Your task to perform on an android device: Search for Italian restaurants on Maps Image 0: 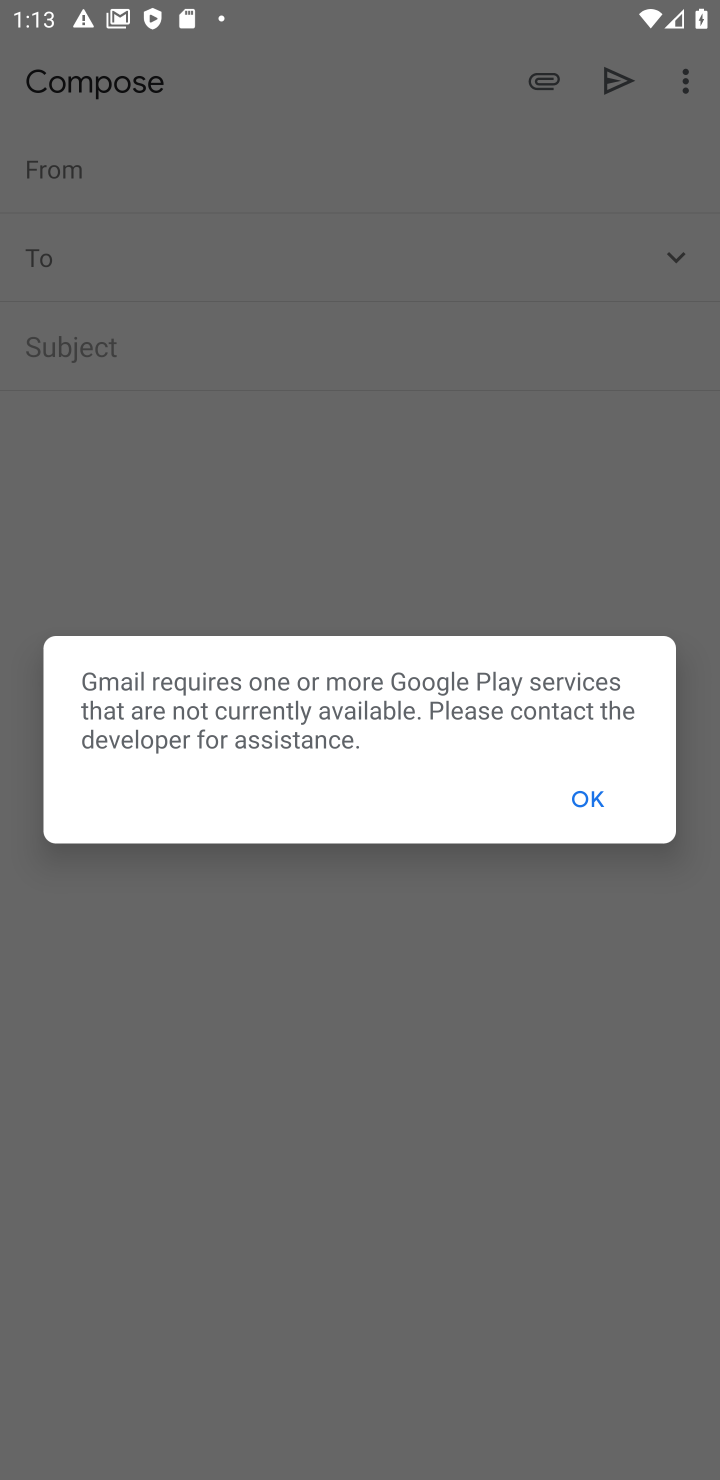
Step 0: press home button
Your task to perform on an android device: Search for Italian restaurants on Maps Image 1: 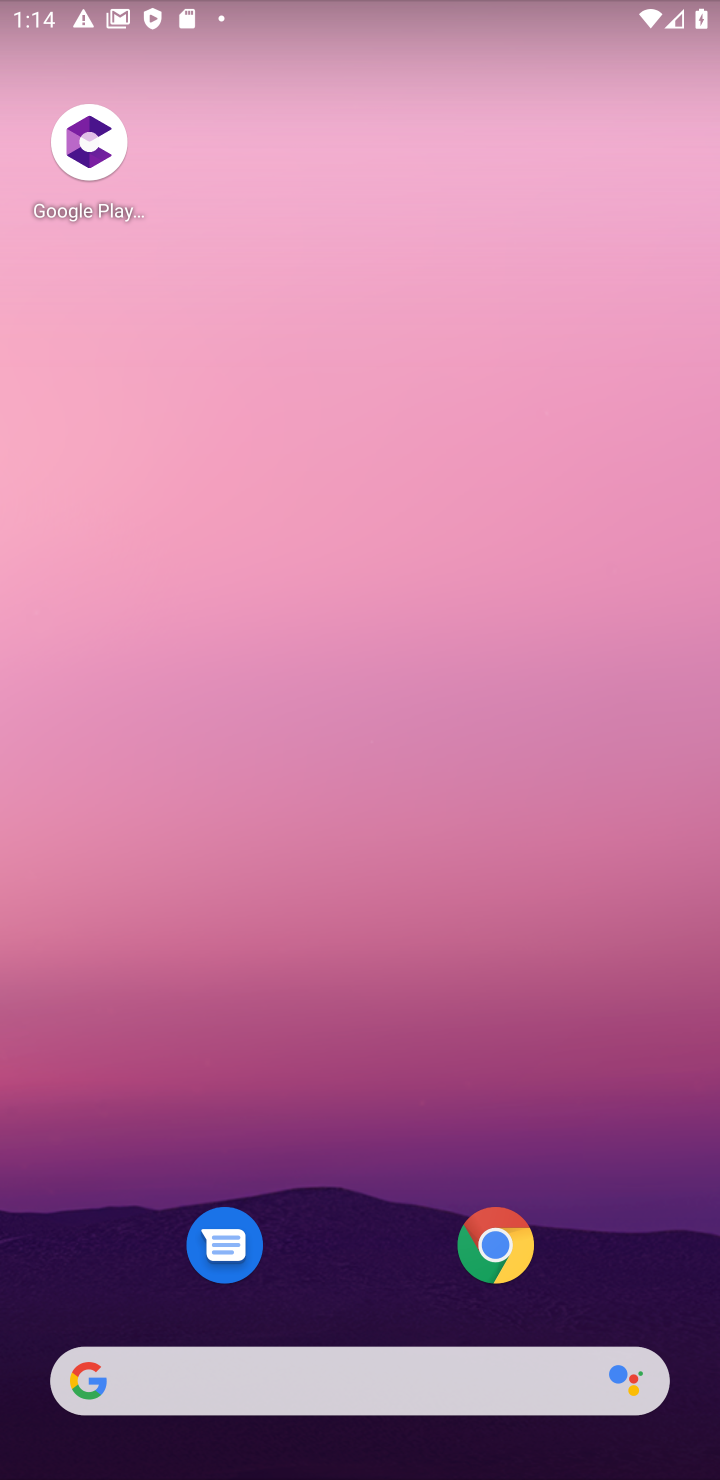
Step 1: drag from (365, 820) to (365, 98)
Your task to perform on an android device: Search for Italian restaurants on Maps Image 2: 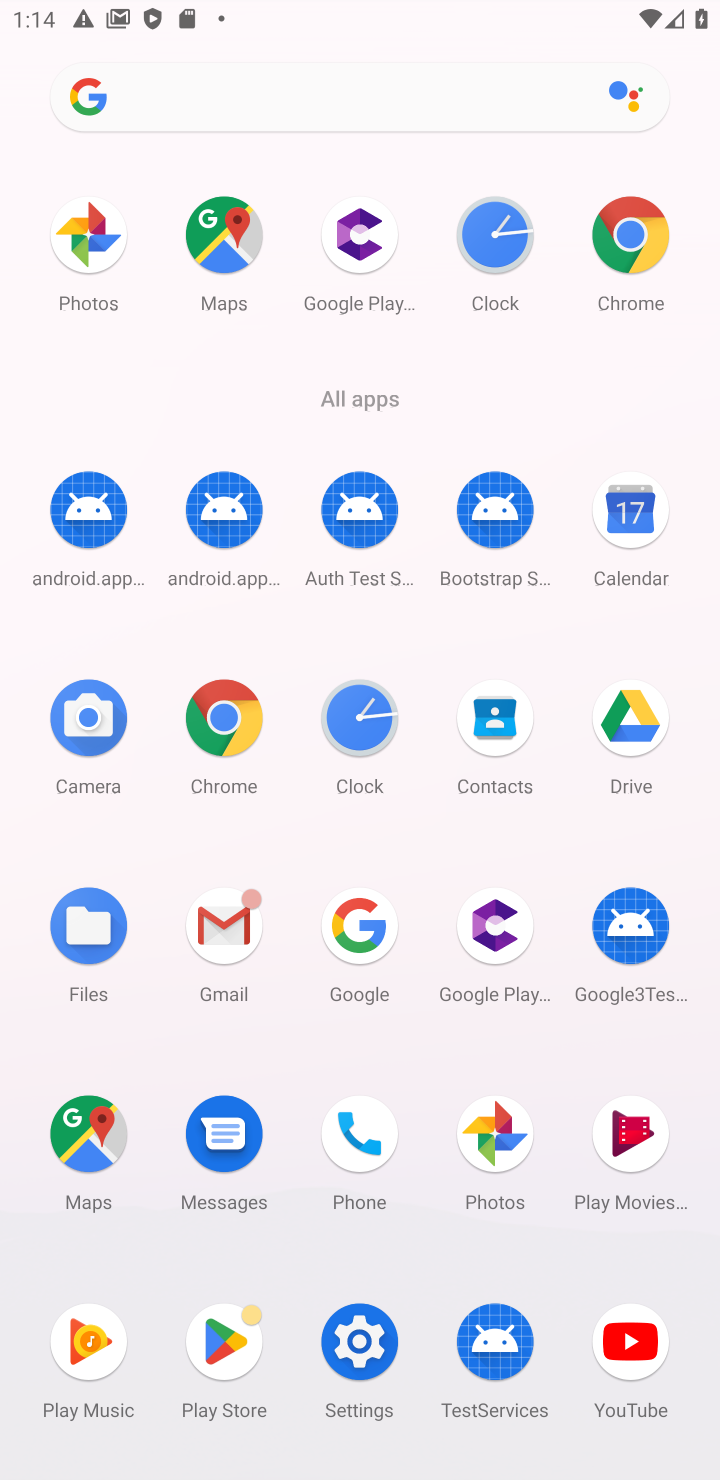
Step 2: click (88, 1117)
Your task to perform on an android device: Search for Italian restaurants on Maps Image 3: 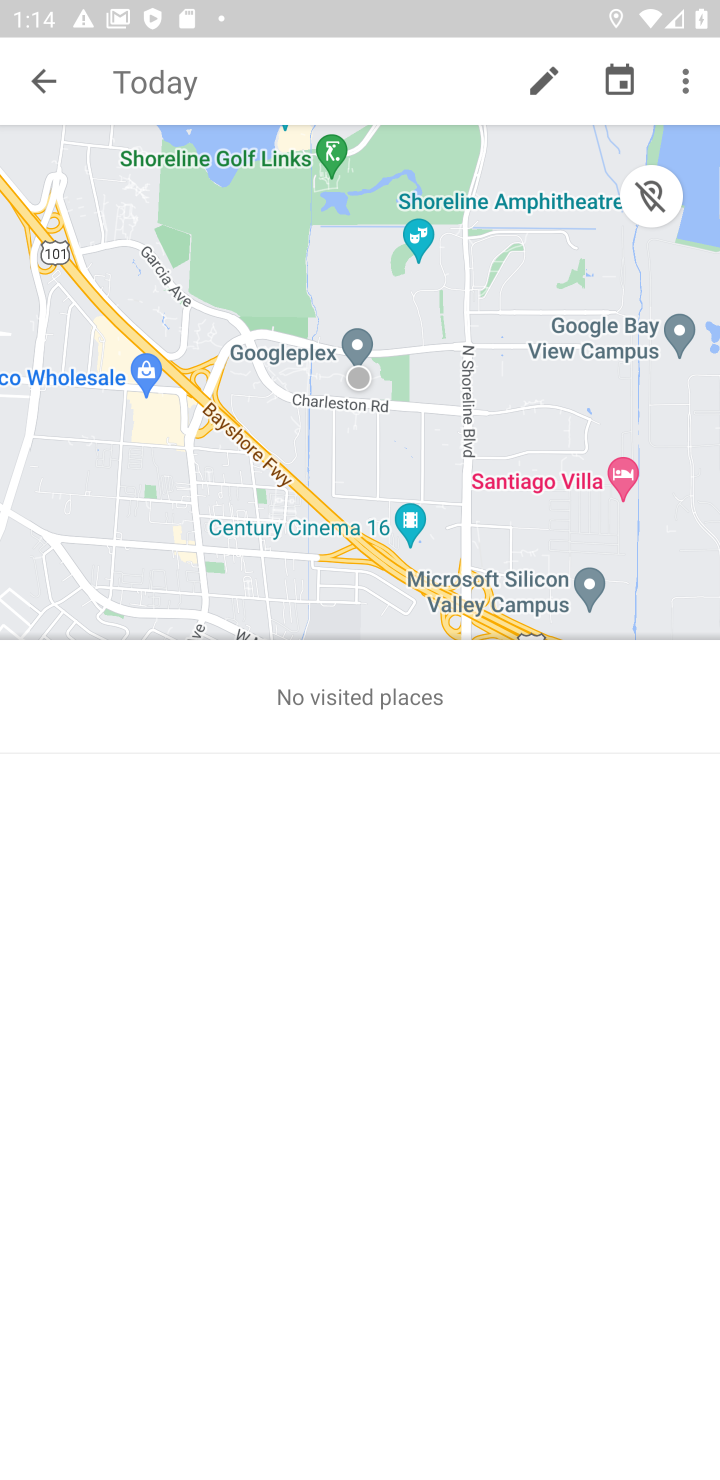
Step 3: click (53, 60)
Your task to perform on an android device: Search for Italian restaurants on Maps Image 4: 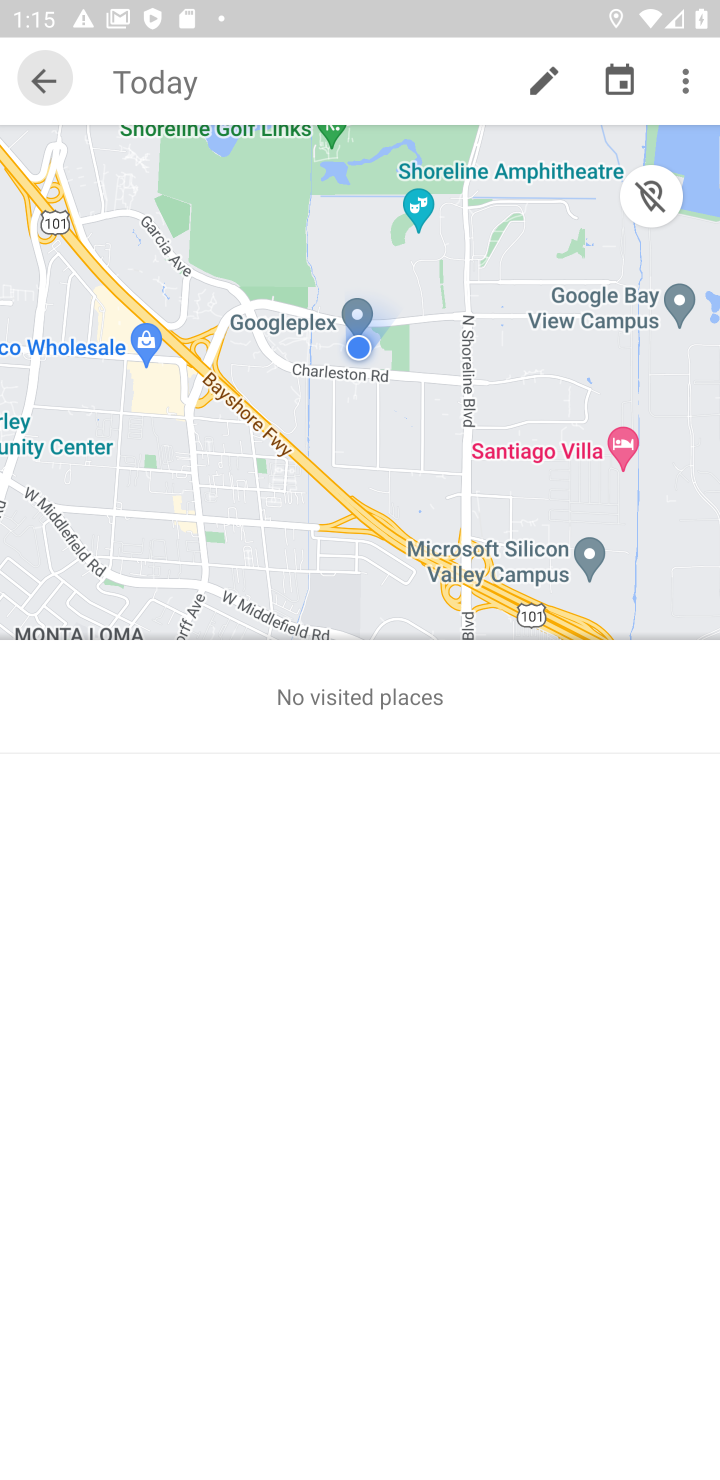
Step 4: click (37, 74)
Your task to perform on an android device: Search for Italian restaurants on Maps Image 5: 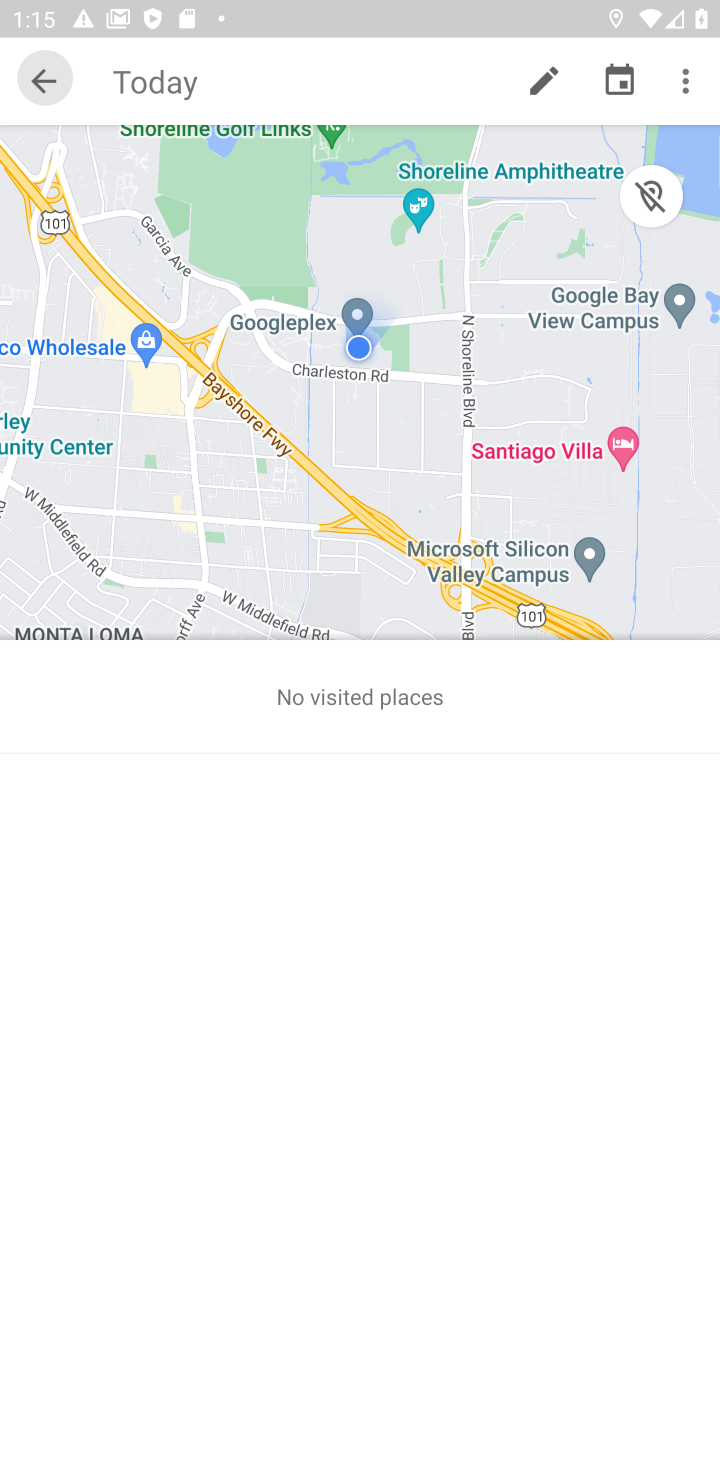
Step 5: press back button
Your task to perform on an android device: Search for Italian restaurants on Maps Image 6: 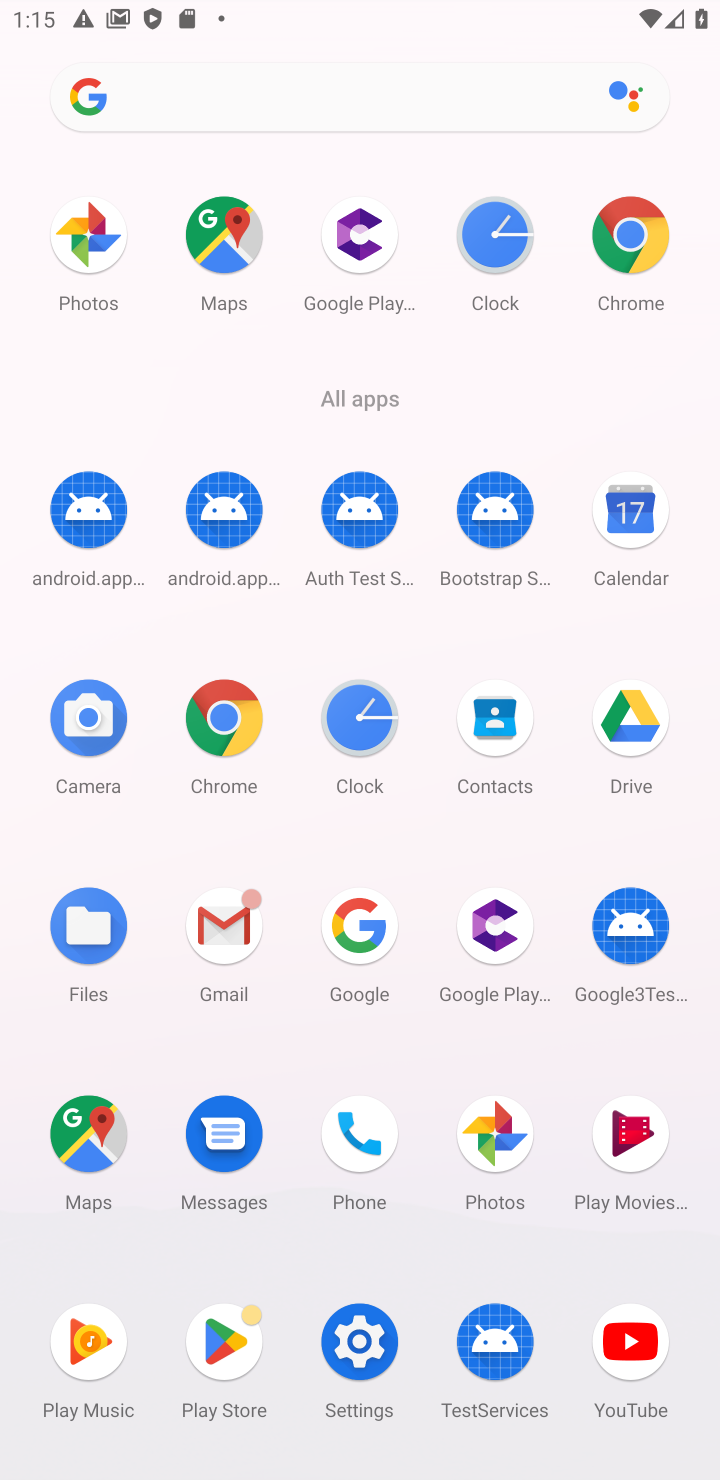
Step 6: click (78, 1130)
Your task to perform on an android device: Search for Italian restaurants on Maps Image 7: 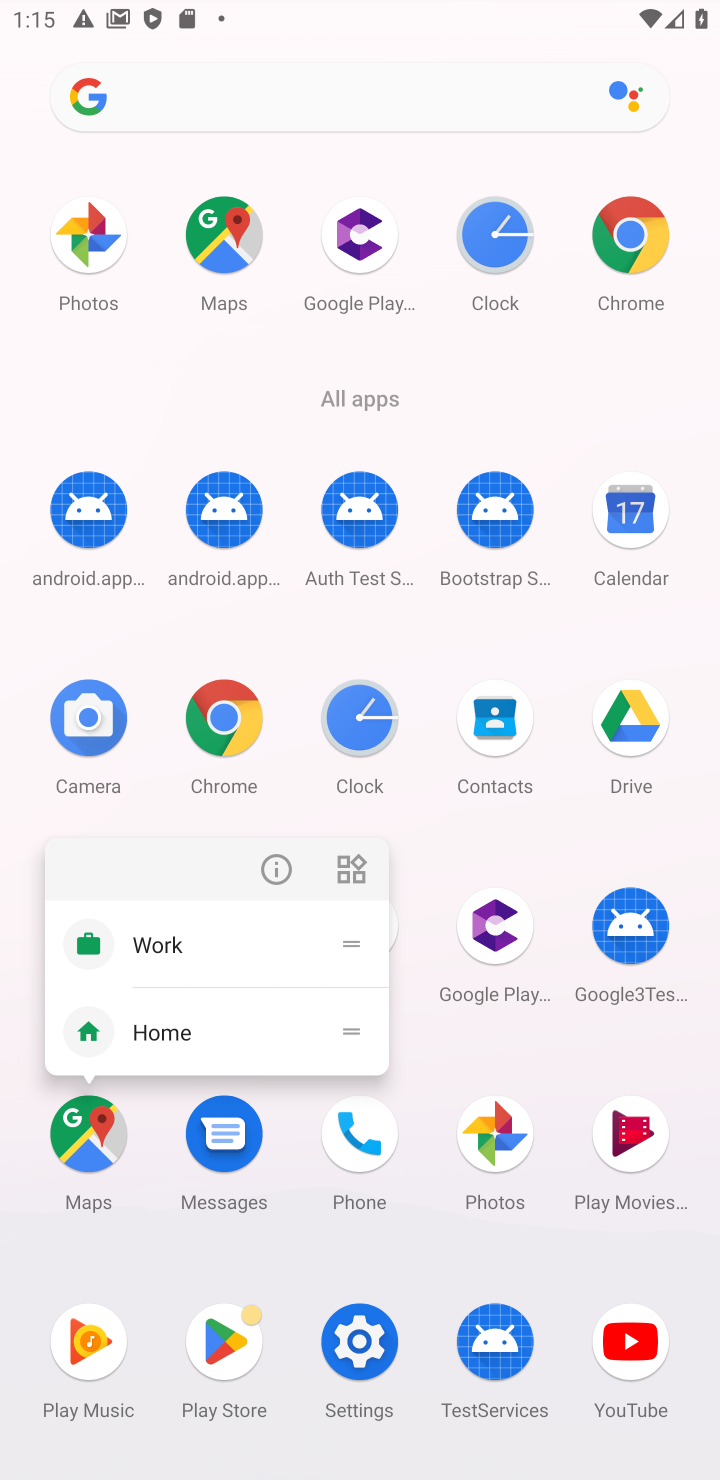
Step 7: click (91, 1136)
Your task to perform on an android device: Search for Italian restaurants on Maps Image 8: 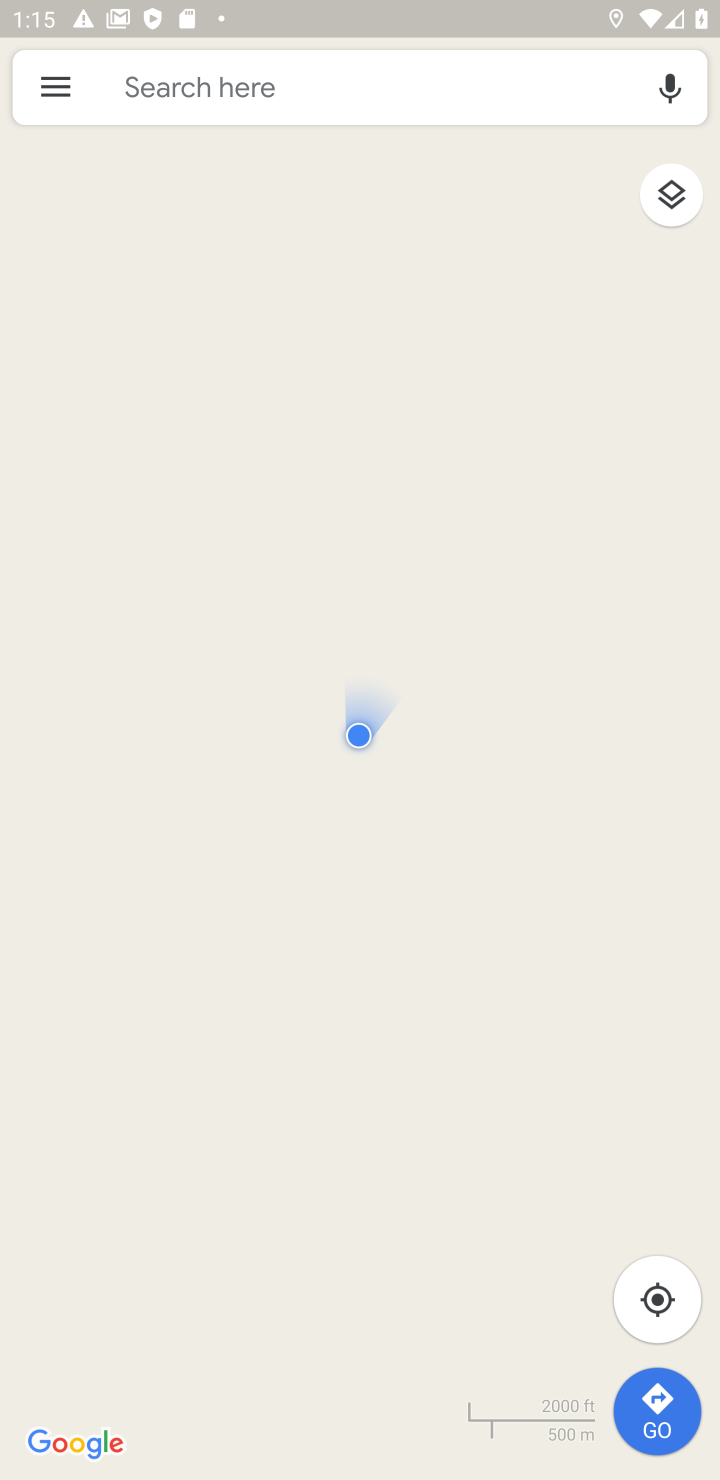
Step 8: click (323, 98)
Your task to perform on an android device: Search for Italian restaurants on Maps Image 9: 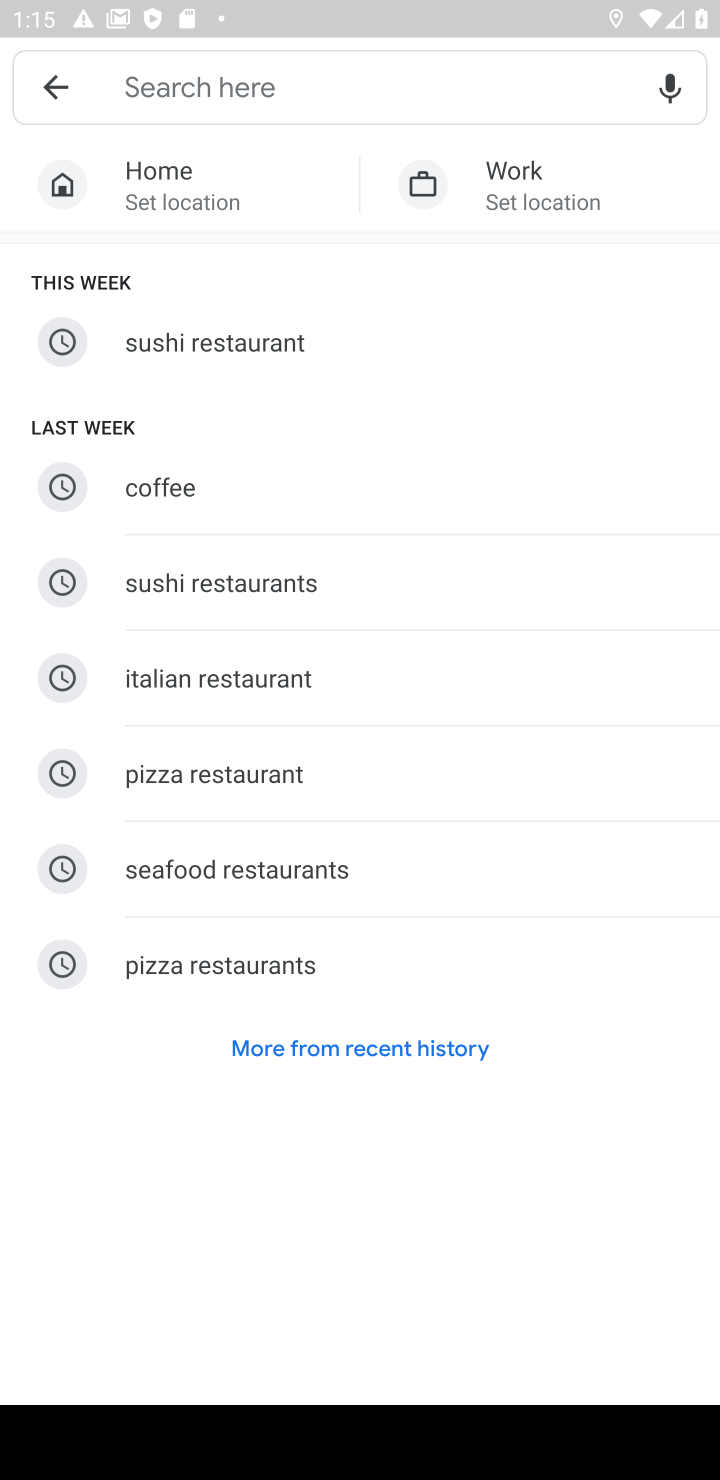
Step 9: click (352, 78)
Your task to perform on an android device: Search for Italian restaurants on Maps Image 10: 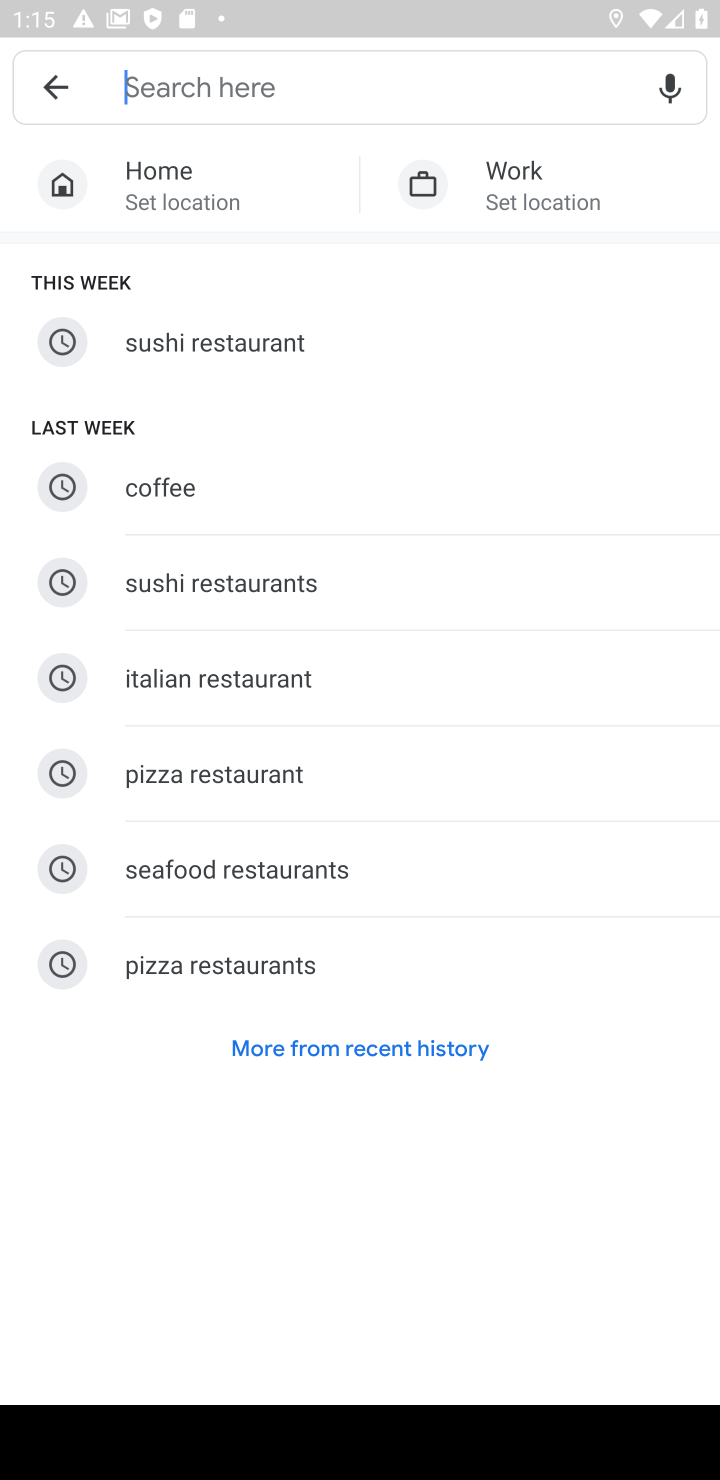
Step 10: type "Italian restaurants"
Your task to perform on an android device: Search for Italian restaurants on Maps Image 11: 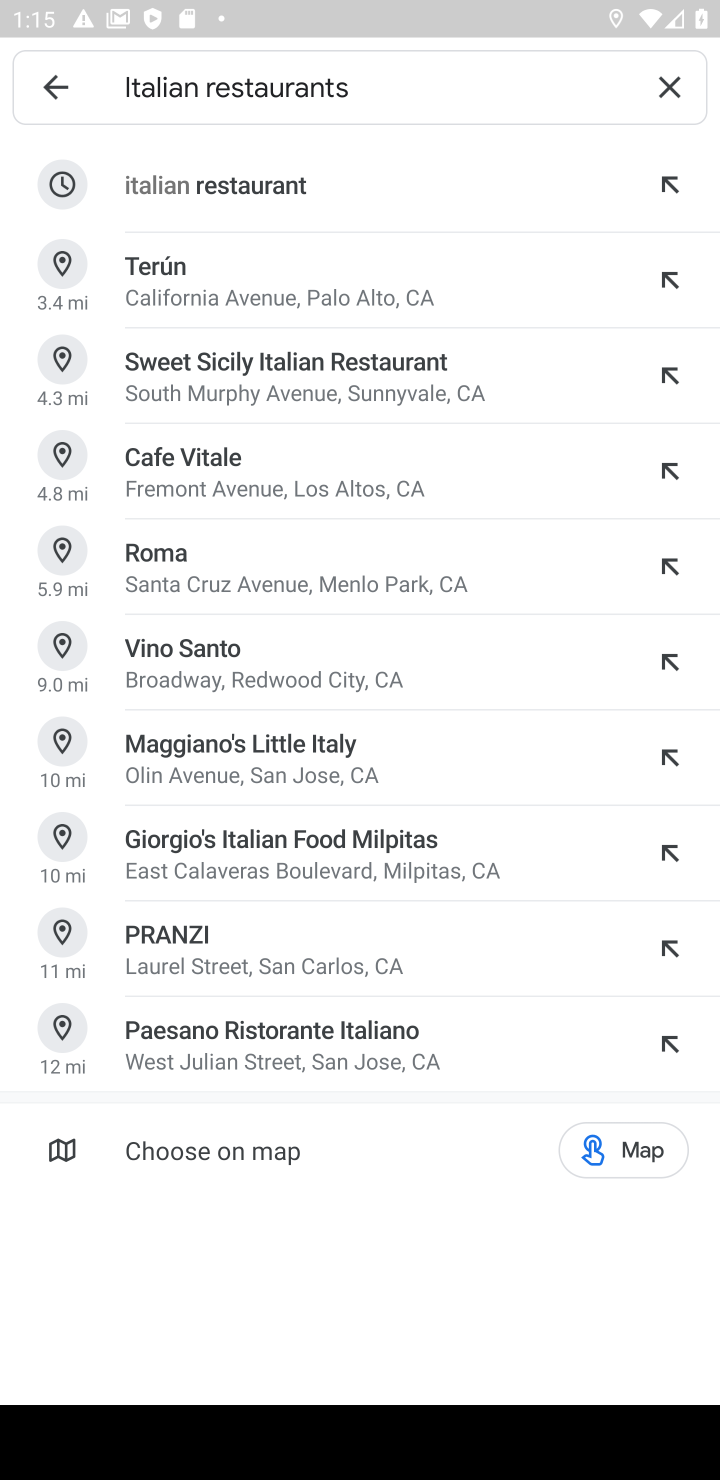
Step 11: click (236, 183)
Your task to perform on an android device: Search for Italian restaurants on Maps Image 12: 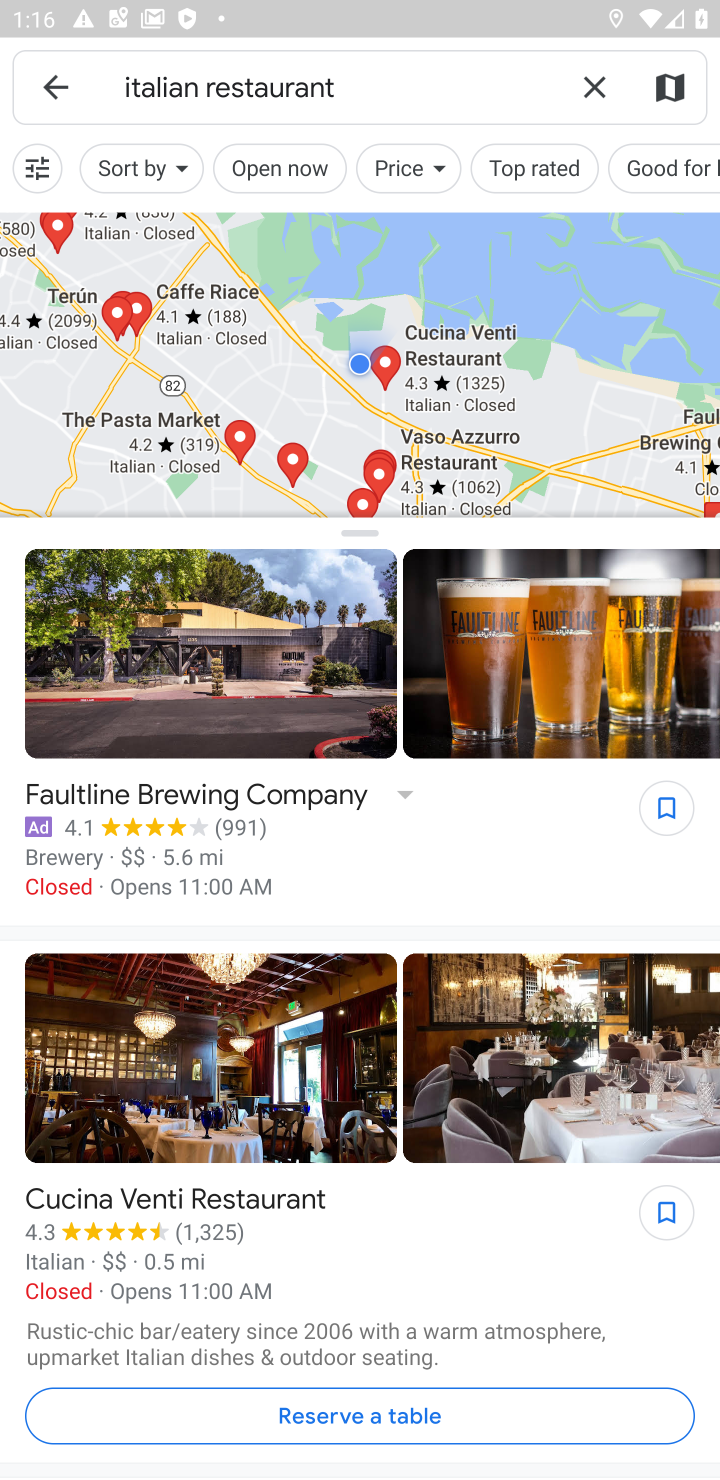
Step 12: task complete